Your task to perform on an android device: all mails in gmail Image 0: 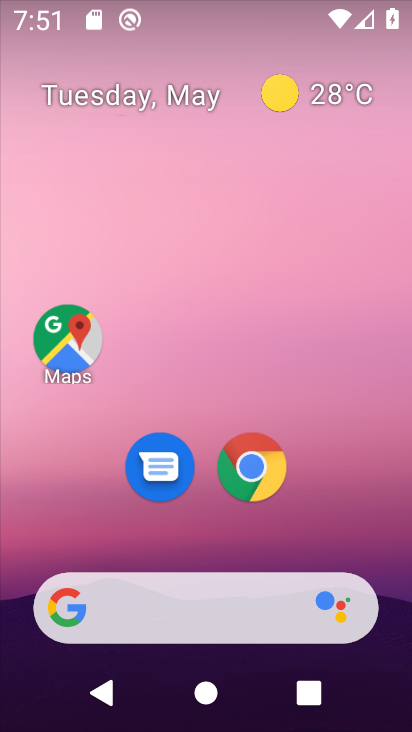
Step 0: drag from (400, 704) to (358, 106)
Your task to perform on an android device: all mails in gmail Image 1: 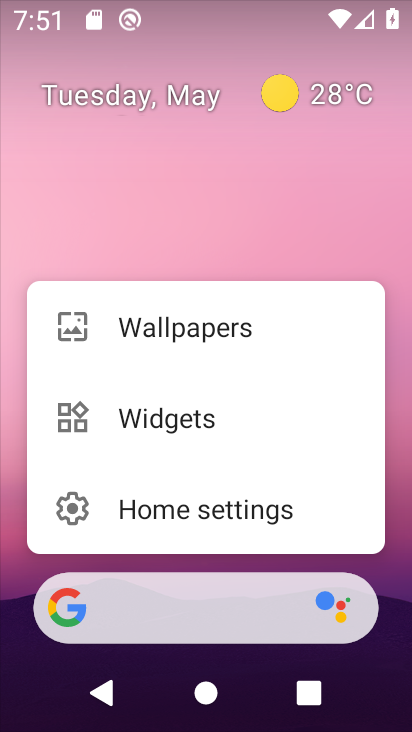
Step 1: click (389, 638)
Your task to perform on an android device: all mails in gmail Image 2: 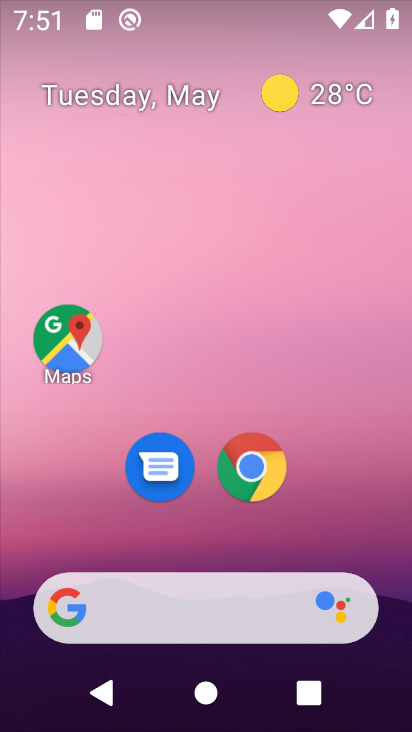
Step 2: drag from (395, 695) to (358, 133)
Your task to perform on an android device: all mails in gmail Image 3: 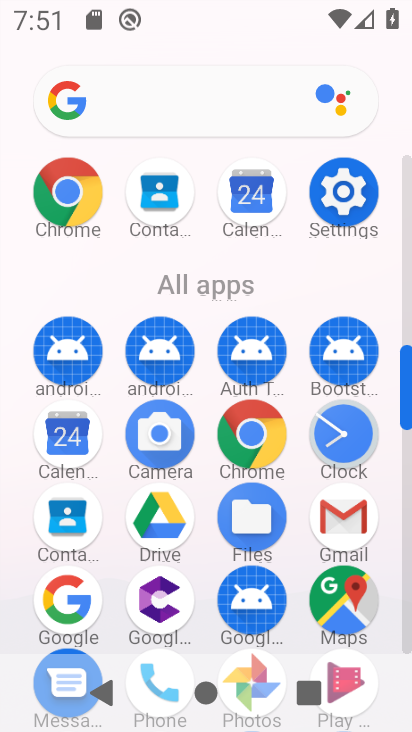
Step 3: click (340, 527)
Your task to perform on an android device: all mails in gmail Image 4: 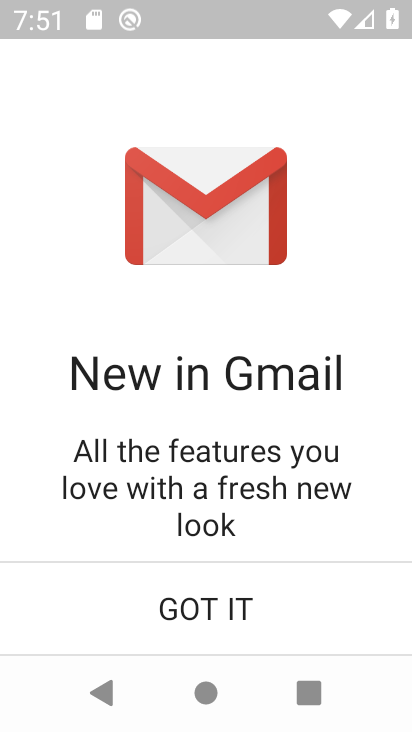
Step 4: click (175, 608)
Your task to perform on an android device: all mails in gmail Image 5: 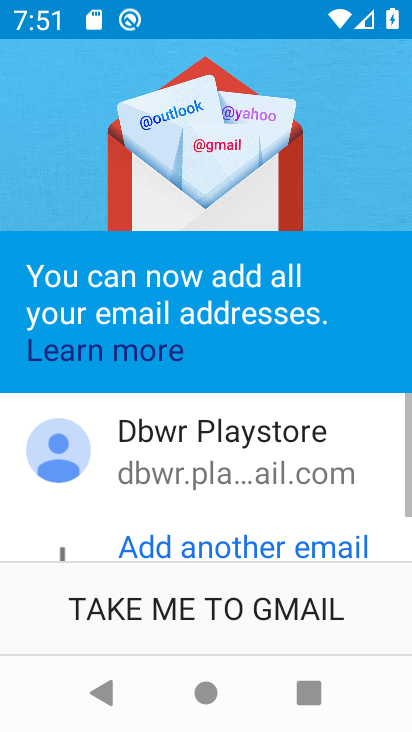
Step 5: click (188, 606)
Your task to perform on an android device: all mails in gmail Image 6: 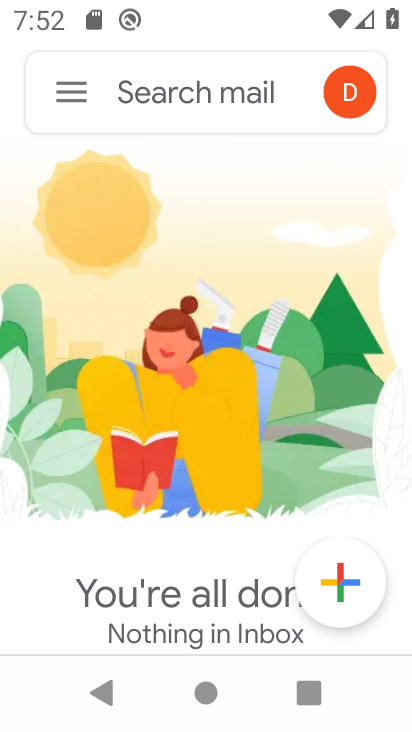
Step 6: click (76, 93)
Your task to perform on an android device: all mails in gmail Image 7: 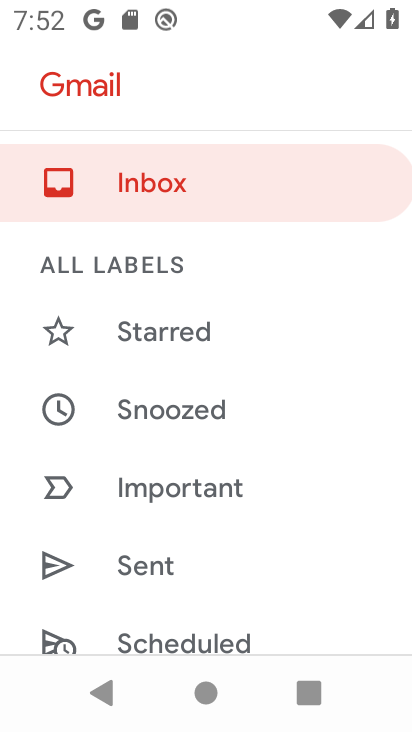
Step 7: drag from (317, 631) to (286, 224)
Your task to perform on an android device: all mails in gmail Image 8: 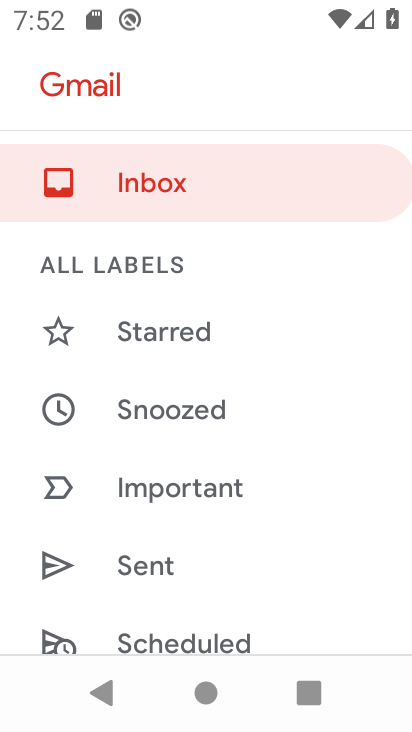
Step 8: drag from (344, 635) to (337, 271)
Your task to perform on an android device: all mails in gmail Image 9: 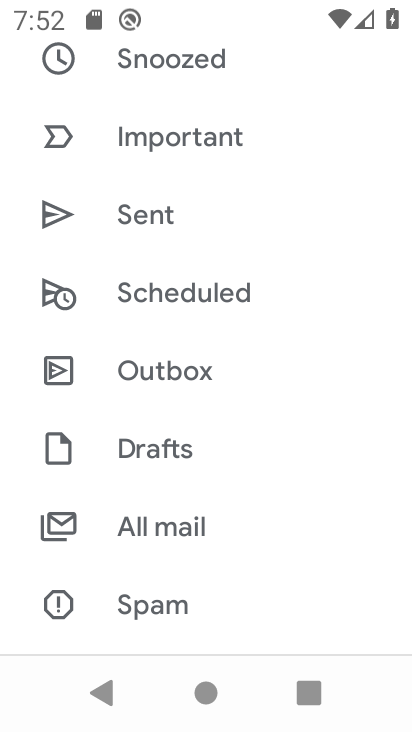
Step 9: click (150, 522)
Your task to perform on an android device: all mails in gmail Image 10: 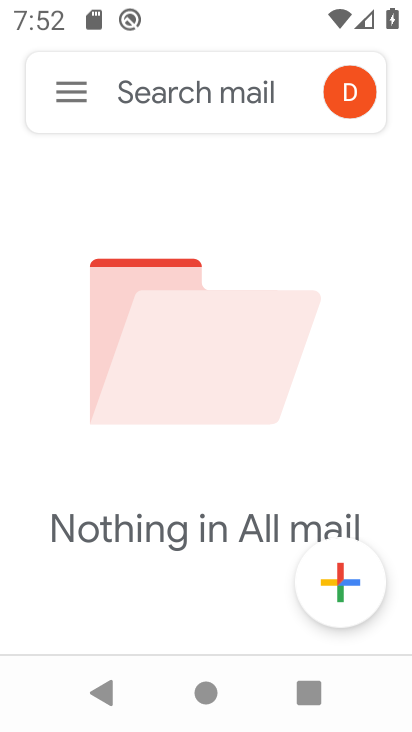
Step 10: task complete